Your task to perform on an android device: Toggle the flashlight Image 0: 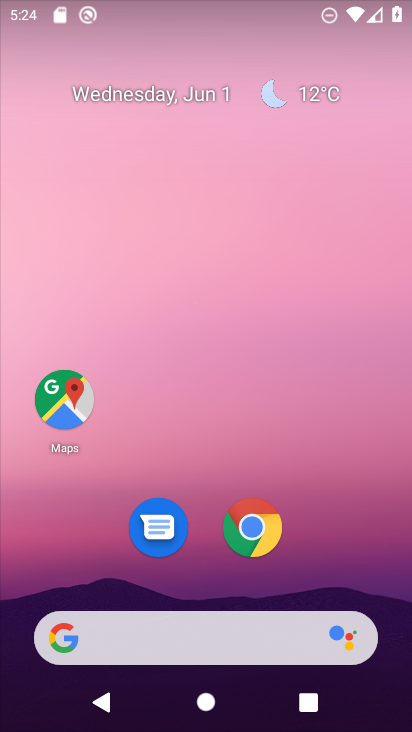
Step 0: drag from (212, 581) to (198, 81)
Your task to perform on an android device: Toggle the flashlight Image 1: 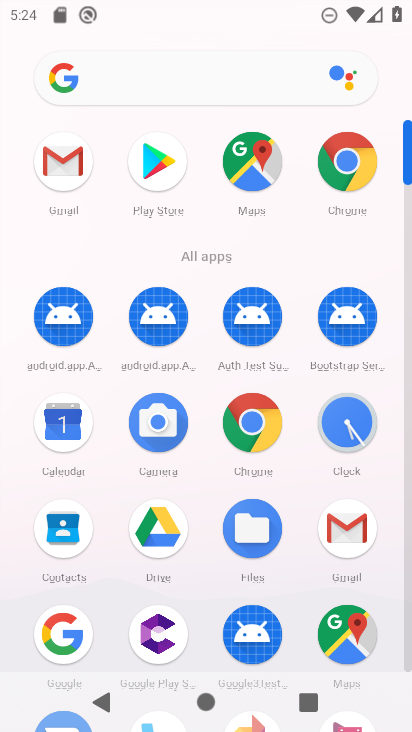
Step 1: drag from (229, 590) to (336, 90)
Your task to perform on an android device: Toggle the flashlight Image 2: 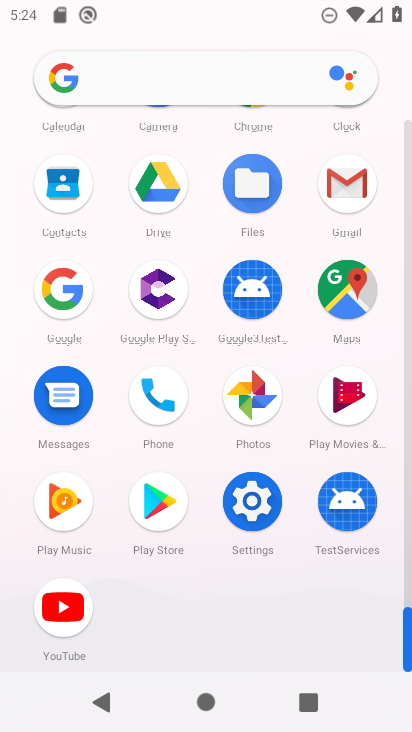
Step 2: click (258, 494)
Your task to perform on an android device: Toggle the flashlight Image 3: 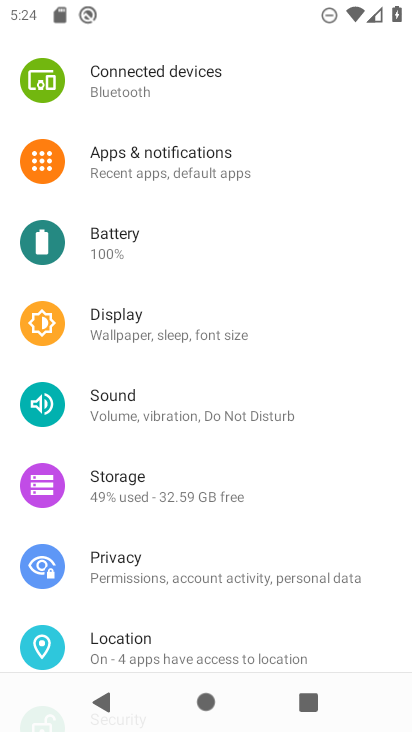
Step 3: task complete